Your task to perform on an android device: Open the web browser Image 0: 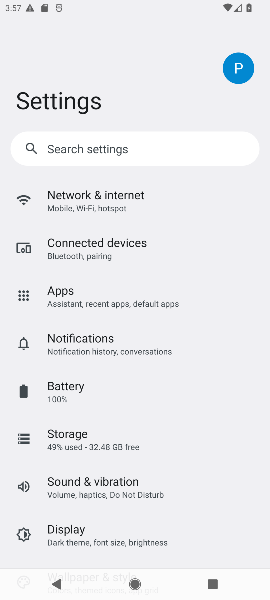
Step 0: press home button
Your task to perform on an android device: Open the web browser Image 1: 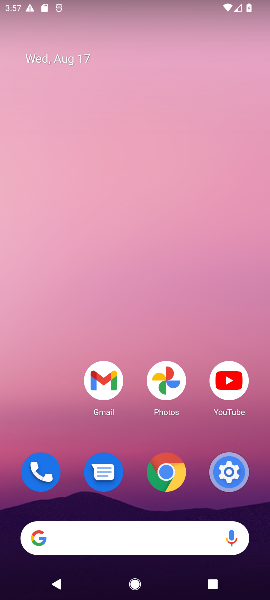
Step 1: drag from (139, 480) to (150, 102)
Your task to perform on an android device: Open the web browser Image 2: 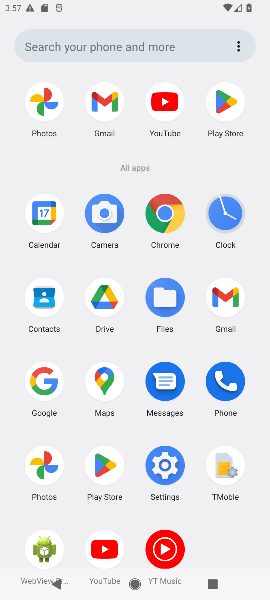
Step 2: click (163, 220)
Your task to perform on an android device: Open the web browser Image 3: 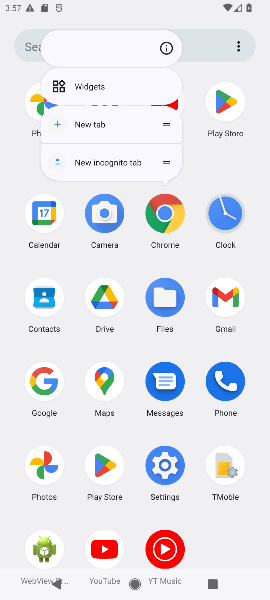
Step 3: click (177, 225)
Your task to perform on an android device: Open the web browser Image 4: 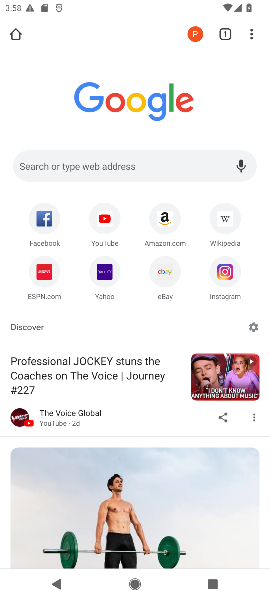
Step 4: task complete